Your task to perform on an android device: Open network settings Image 0: 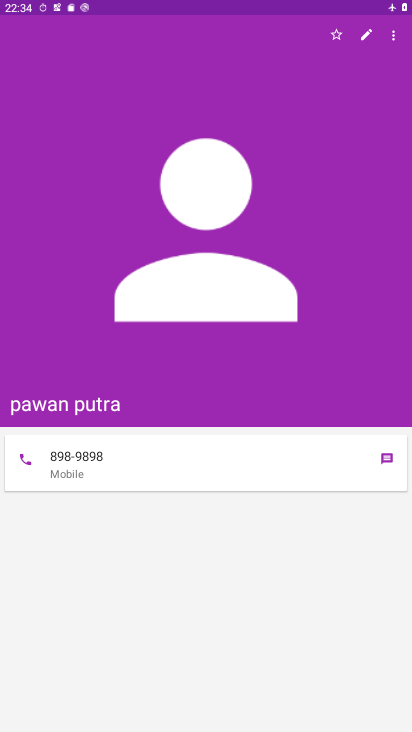
Step 0: press home button
Your task to perform on an android device: Open network settings Image 1: 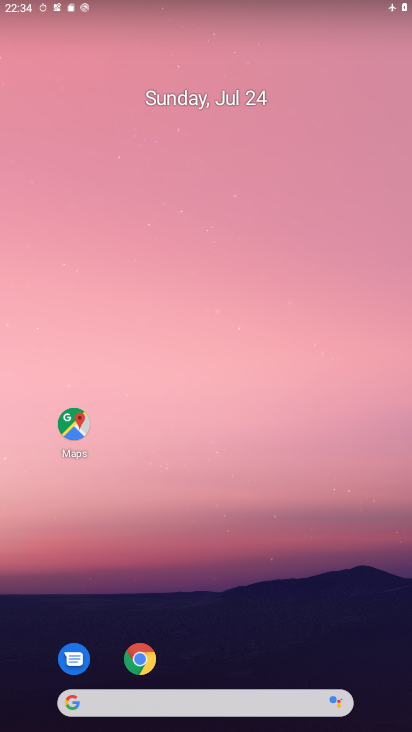
Step 1: drag from (209, 727) to (207, 10)
Your task to perform on an android device: Open network settings Image 2: 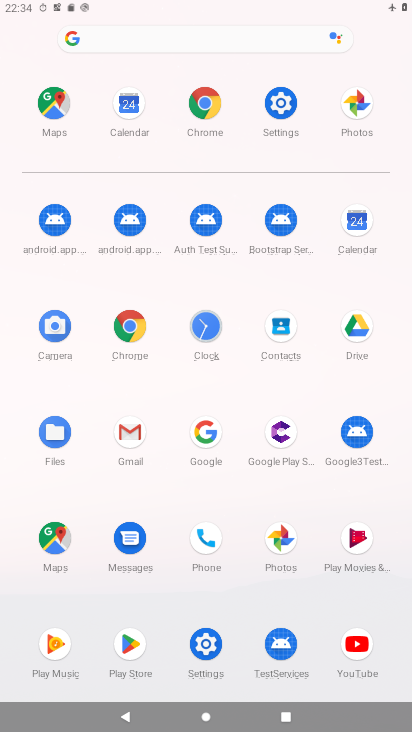
Step 2: click (282, 99)
Your task to perform on an android device: Open network settings Image 3: 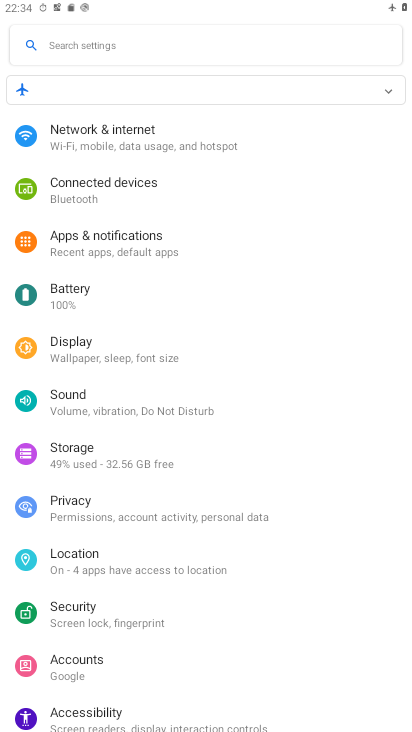
Step 3: click (131, 137)
Your task to perform on an android device: Open network settings Image 4: 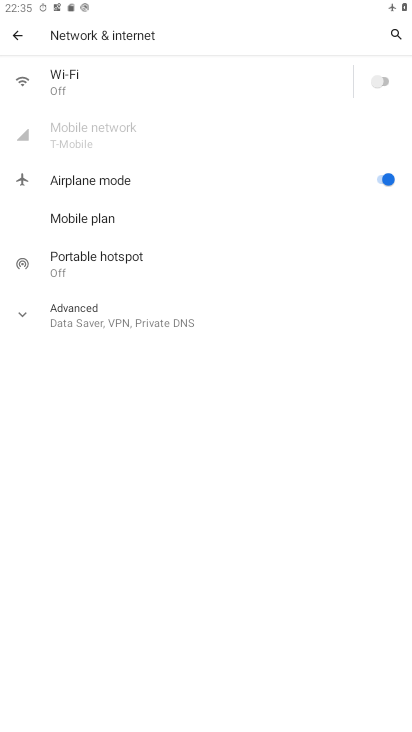
Step 4: task complete